Your task to perform on an android device: Show me popular videos on Youtube Image 0: 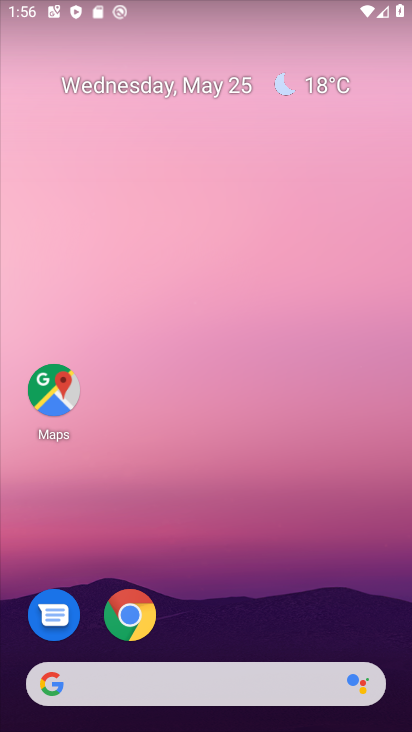
Step 0: drag from (249, 560) to (270, 1)
Your task to perform on an android device: Show me popular videos on Youtube Image 1: 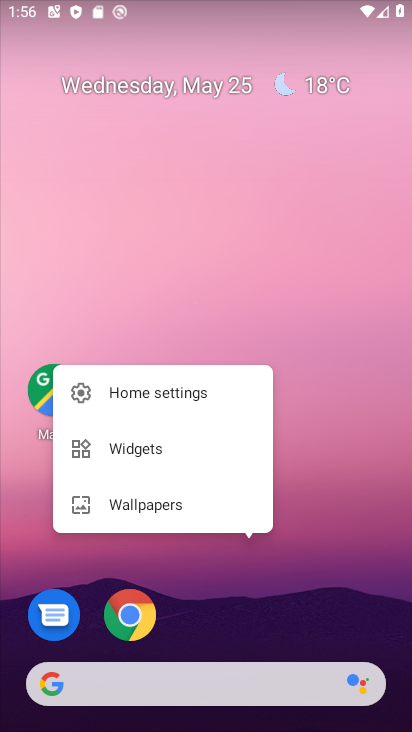
Step 1: click (291, 554)
Your task to perform on an android device: Show me popular videos on Youtube Image 2: 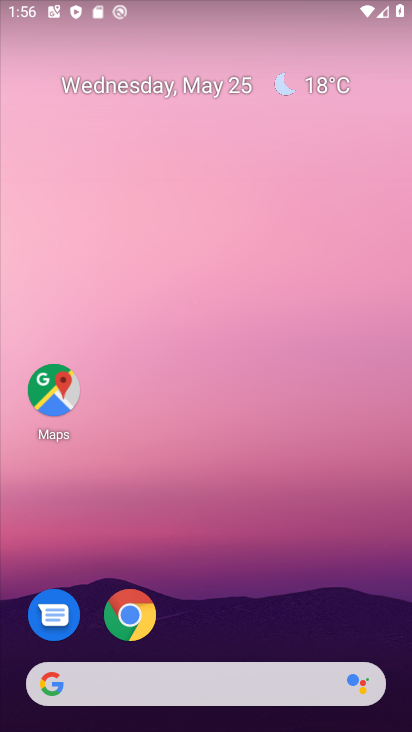
Step 2: drag from (244, 560) to (280, 33)
Your task to perform on an android device: Show me popular videos on Youtube Image 3: 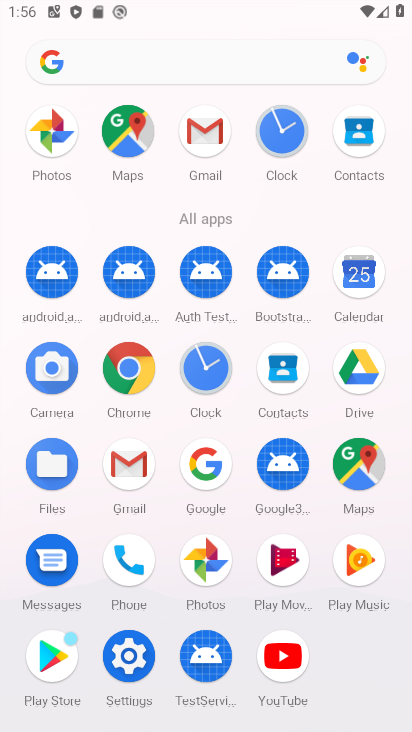
Step 3: click (280, 653)
Your task to perform on an android device: Show me popular videos on Youtube Image 4: 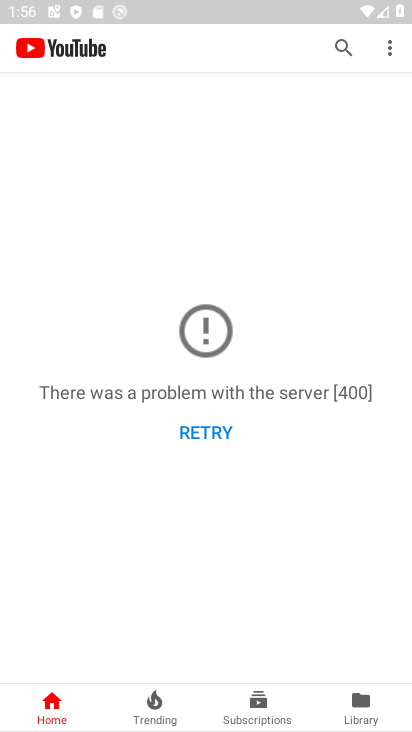
Step 4: click (219, 427)
Your task to perform on an android device: Show me popular videos on Youtube Image 5: 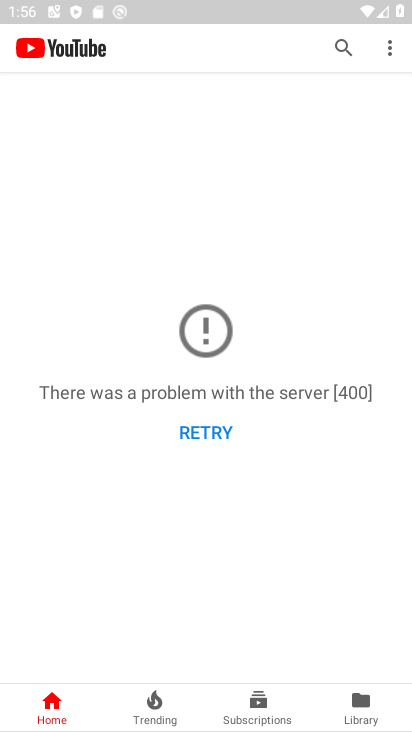
Step 5: click (219, 423)
Your task to perform on an android device: Show me popular videos on Youtube Image 6: 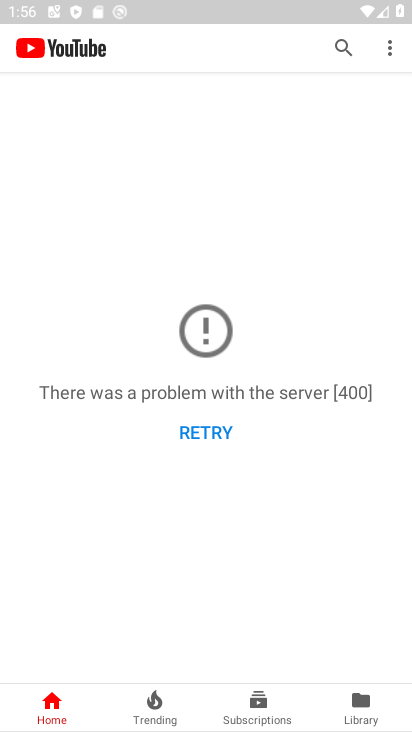
Step 6: task complete